Your task to perform on an android device: Go to calendar. Show me events next week Image 0: 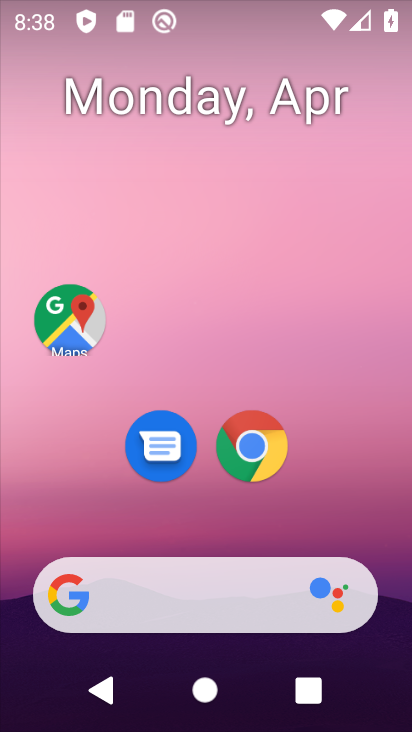
Step 0: drag from (330, 508) to (319, 109)
Your task to perform on an android device: Go to calendar. Show me events next week Image 1: 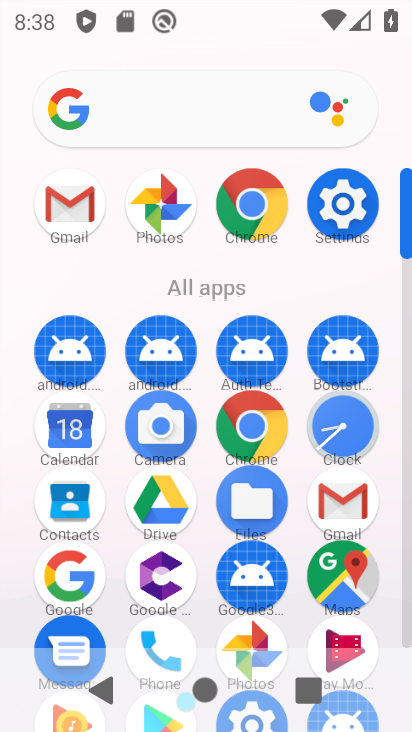
Step 1: click (55, 441)
Your task to perform on an android device: Go to calendar. Show me events next week Image 2: 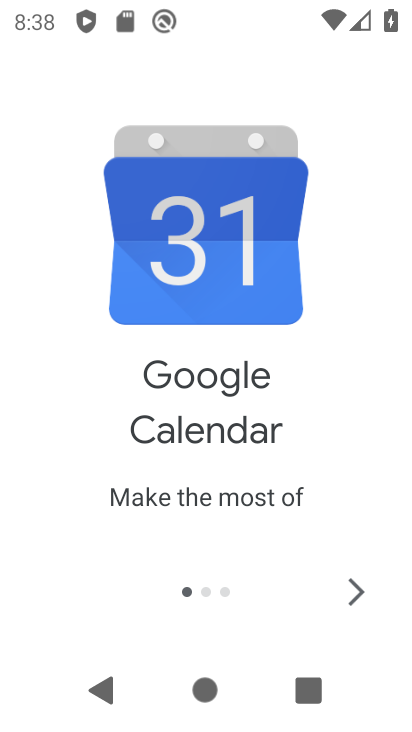
Step 2: click (343, 585)
Your task to perform on an android device: Go to calendar. Show me events next week Image 3: 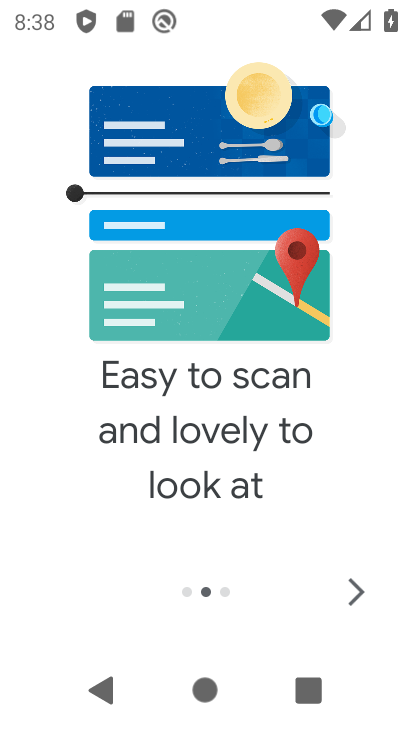
Step 3: click (355, 584)
Your task to perform on an android device: Go to calendar. Show me events next week Image 4: 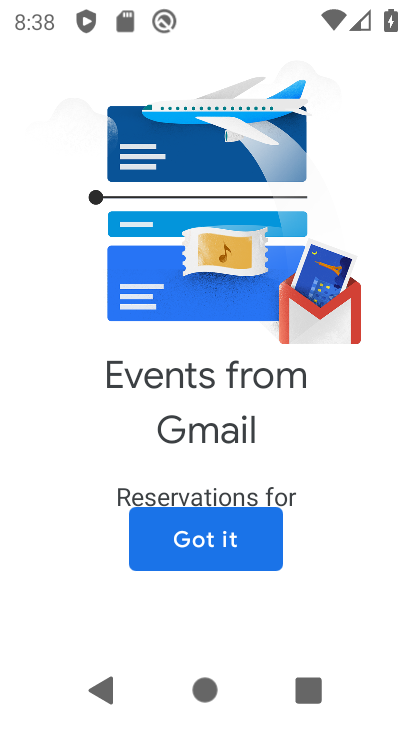
Step 4: click (206, 543)
Your task to perform on an android device: Go to calendar. Show me events next week Image 5: 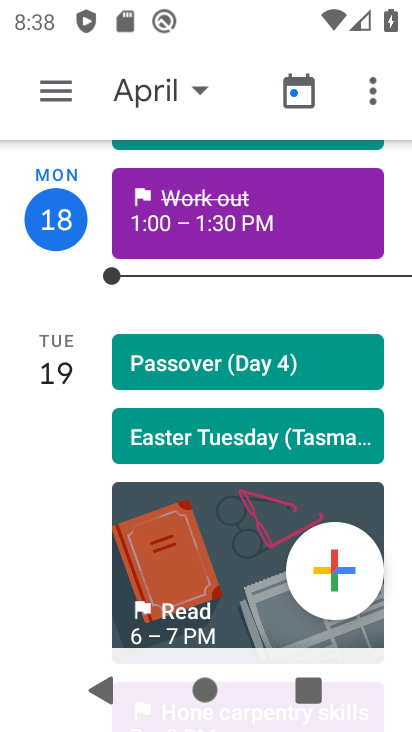
Step 5: click (202, 87)
Your task to perform on an android device: Go to calendar. Show me events next week Image 6: 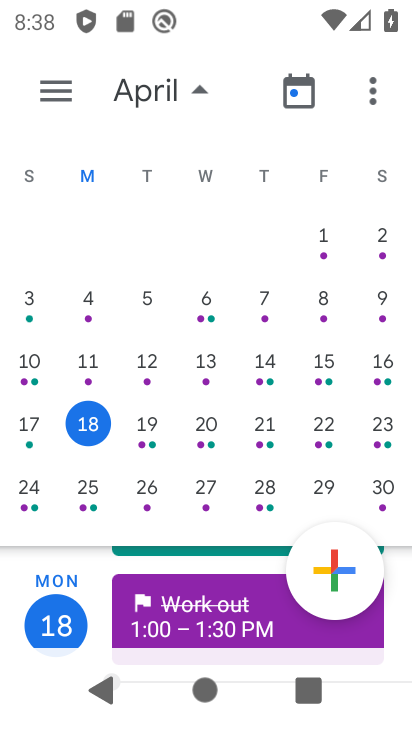
Step 6: click (90, 486)
Your task to perform on an android device: Go to calendar. Show me events next week Image 7: 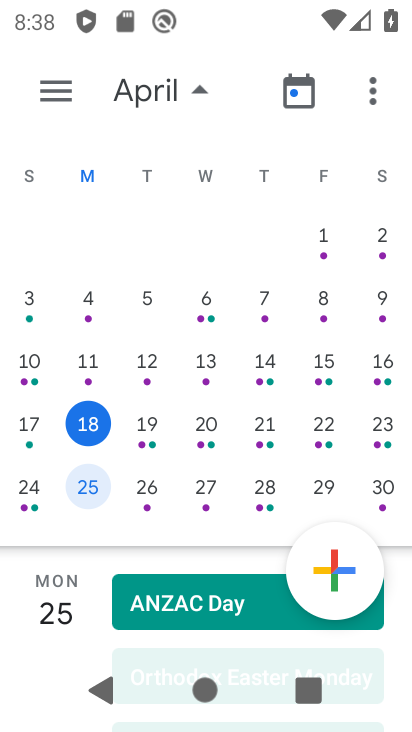
Step 7: task complete